Your task to perform on an android device: Open calendar and show me the third week of next month Image 0: 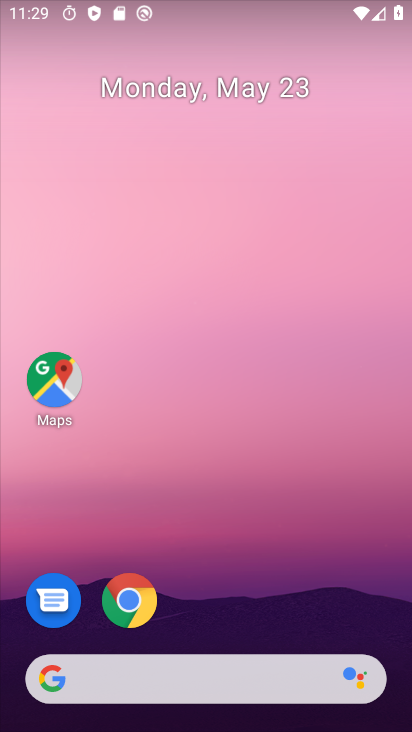
Step 0: drag from (307, 645) to (276, 202)
Your task to perform on an android device: Open calendar and show me the third week of next month Image 1: 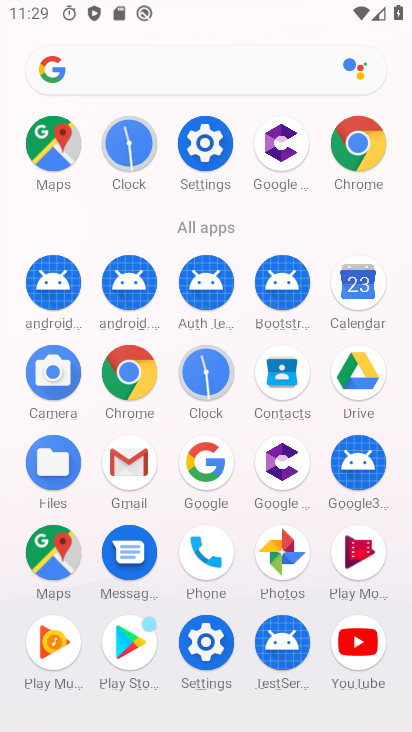
Step 1: click (357, 269)
Your task to perform on an android device: Open calendar and show me the third week of next month Image 2: 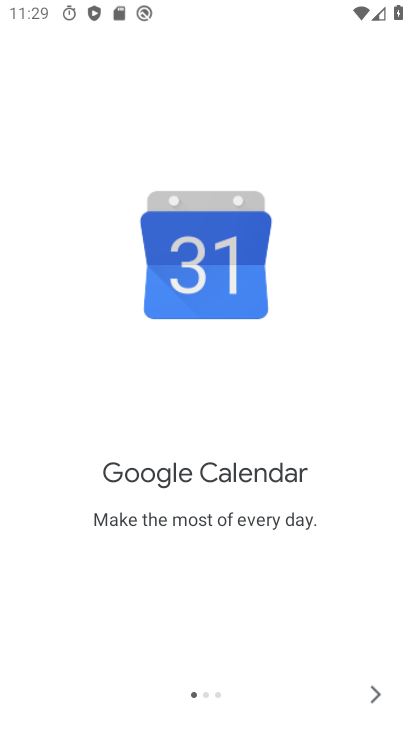
Step 2: click (378, 703)
Your task to perform on an android device: Open calendar and show me the third week of next month Image 3: 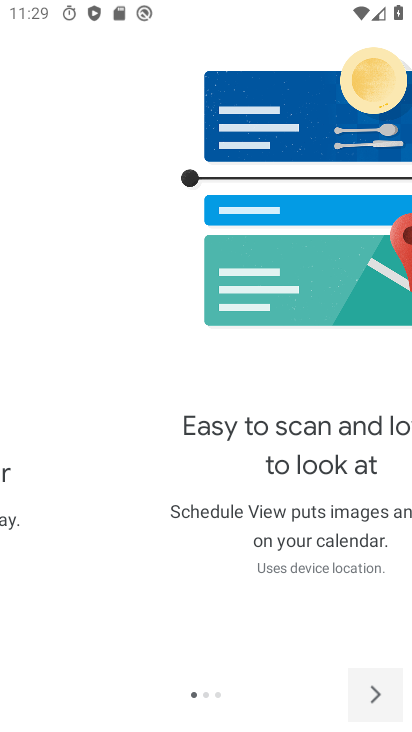
Step 3: click (378, 703)
Your task to perform on an android device: Open calendar and show me the third week of next month Image 4: 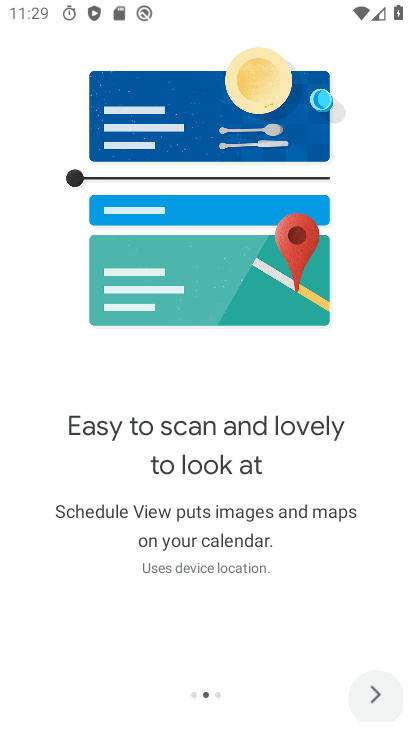
Step 4: click (378, 703)
Your task to perform on an android device: Open calendar and show me the third week of next month Image 5: 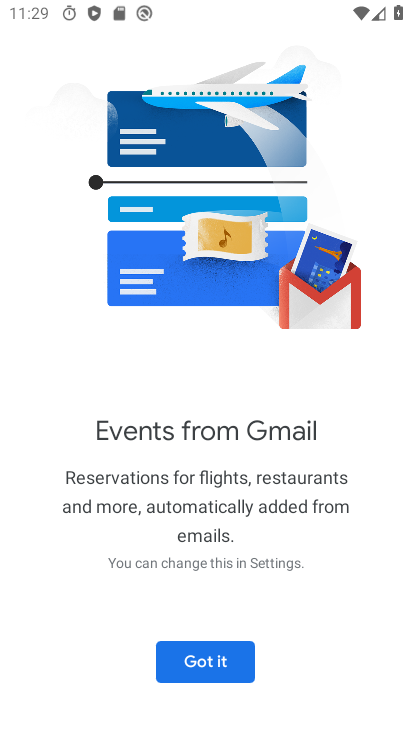
Step 5: click (217, 660)
Your task to perform on an android device: Open calendar and show me the third week of next month Image 6: 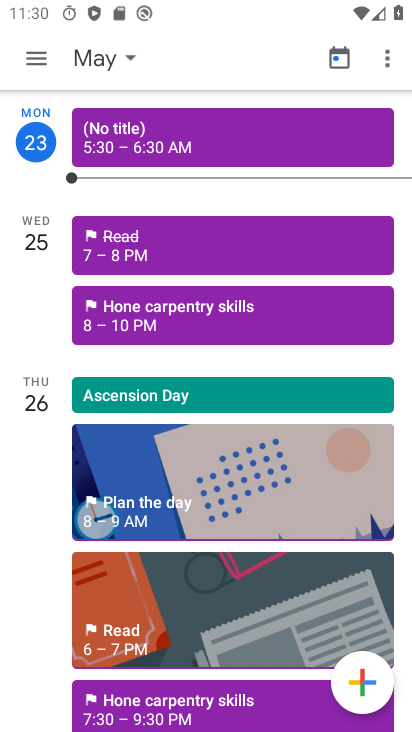
Step 6: click (112, 65)
Your task to perform on an android device: Open calendar and show me the third week of next month Image 7: 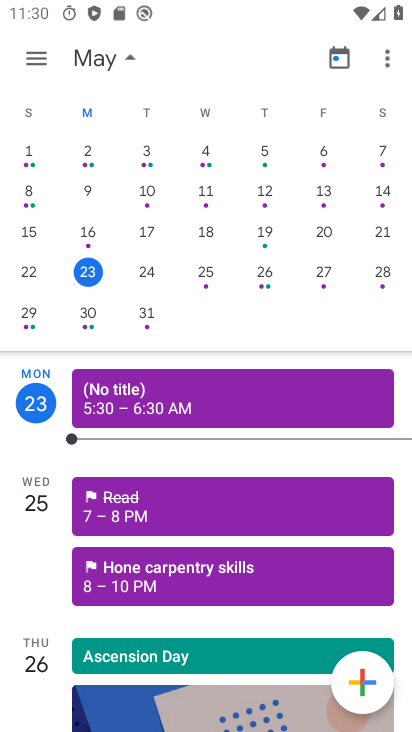
Step 7: drag from (360, 205) to (86, 195)
Your task to perform on an android device: Open calendar and show me the third week of next month Image 8: 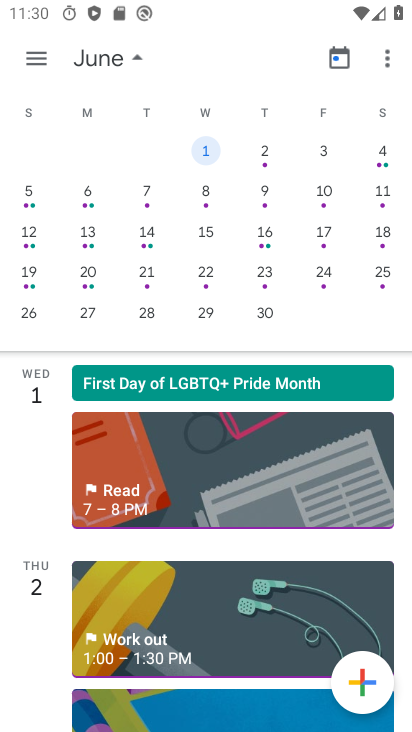
Step 8: click (36, 277)
Your task to perform on an android device: Open calendar and show me the third week of next month Image 9: 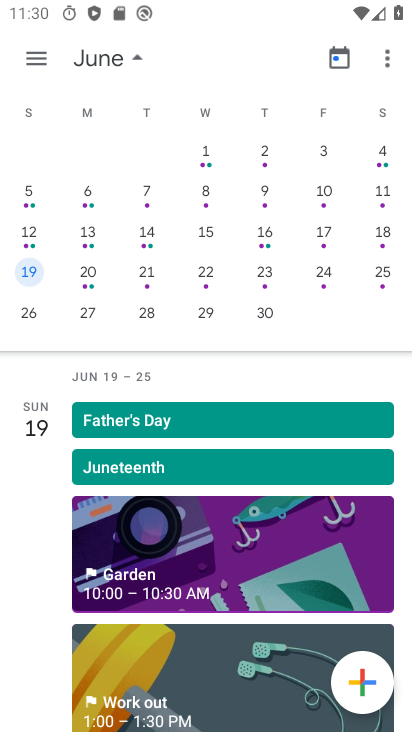
Step 9: click (42, 57)
Your task to perform on an android device: Open calendar and show me the third week of next month Image 10: 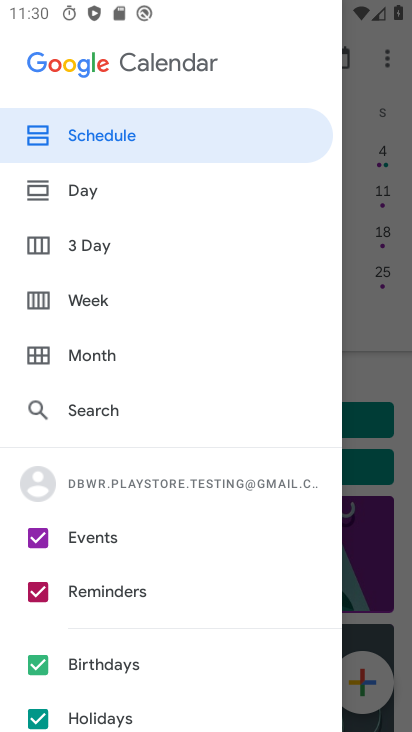
Step 10: click (99, 302)
Your task to perform on an android device: Open calendar and show me the third week of next month Image 11: 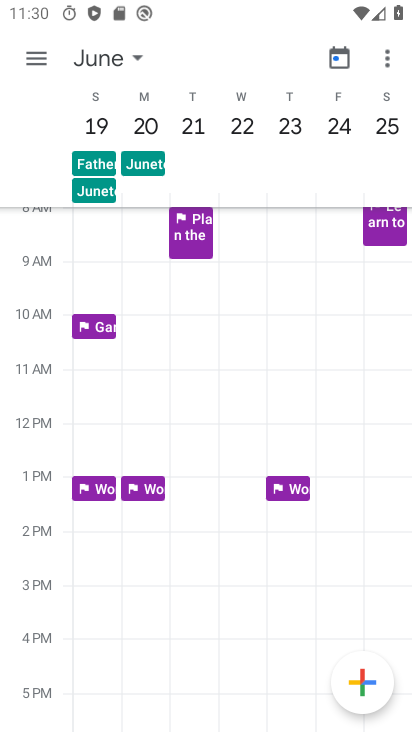
Step 11: task complete